Your task to perform on an android device: Search for panasonic triple a on newegg.com, select the first entry, and add it to the cart. Image 0: 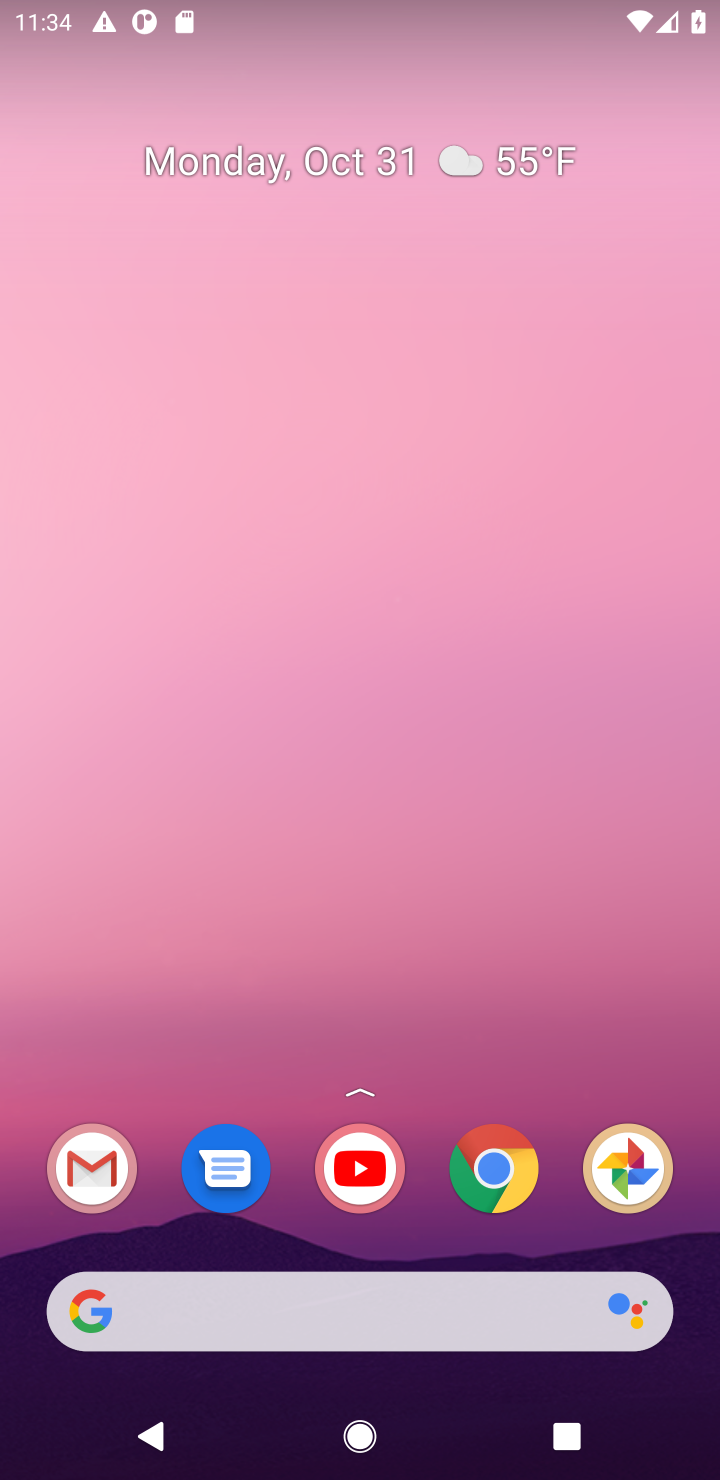
Step 0: click (497, 1172)
Your task to perform on an android device: Search for panasonic triple a on newegg.com, select the first entry, and add it to the cart. Image 1: 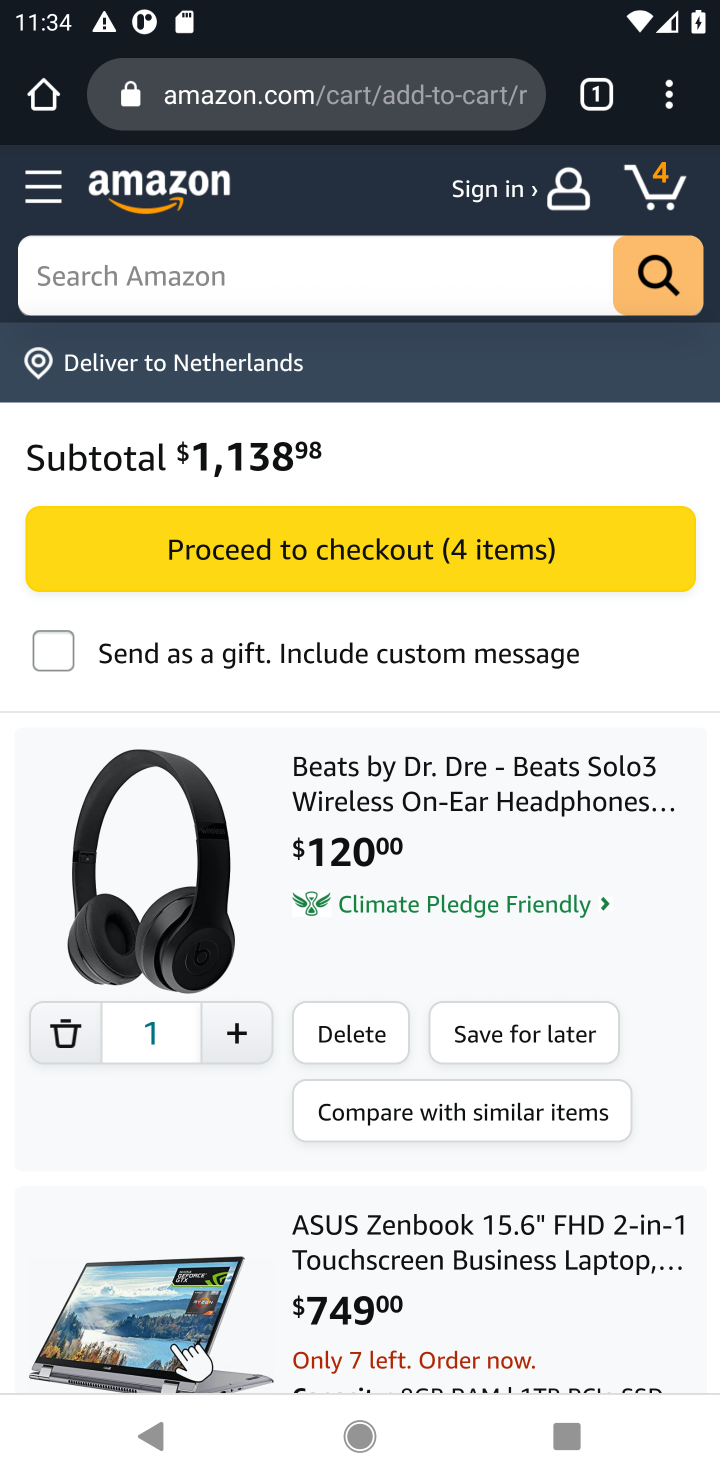
Step 1: click (214, 107)
Your task to perform on an android device: Search for panasonic triple a on newegg.com, select the first entry, and add it to the cart. Image 2: 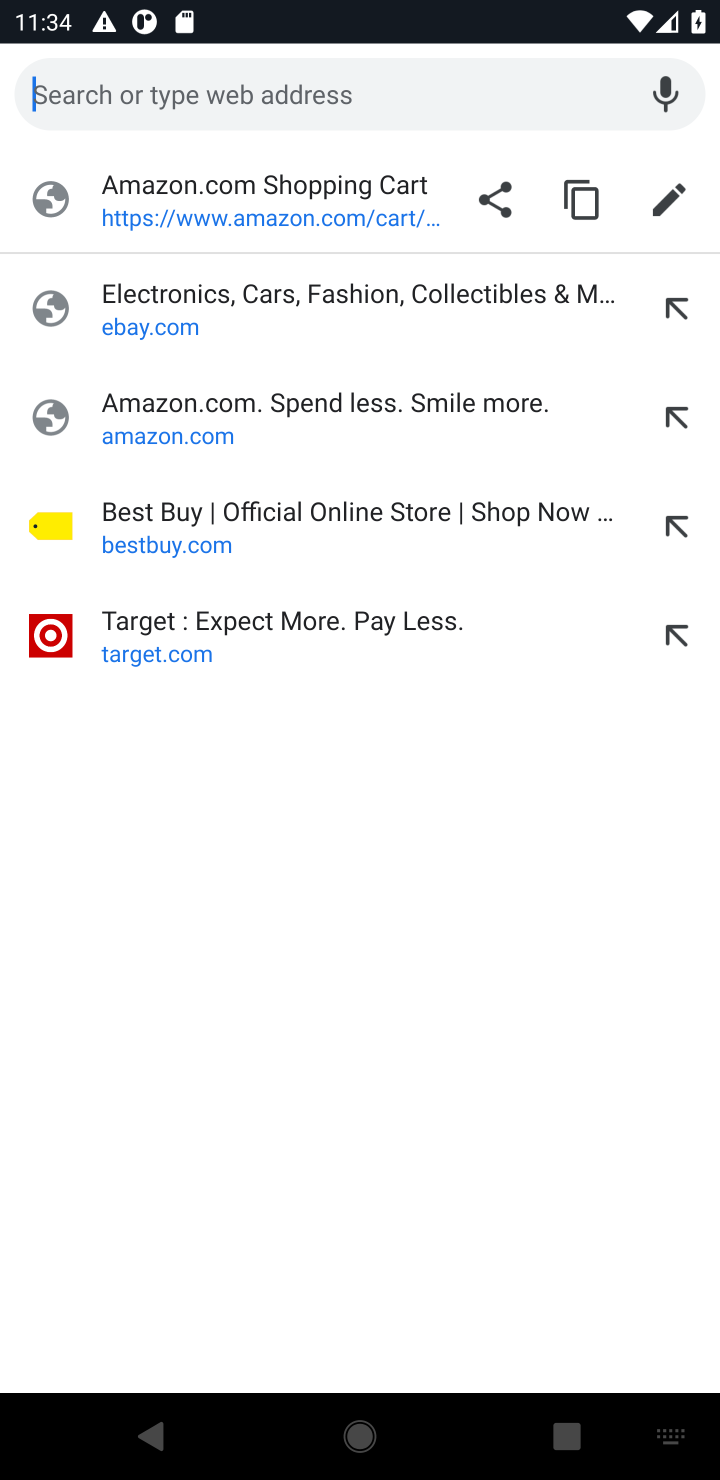
Step 2: click (177, 88)
Your task to perform on an android device: Search for panasonic triple a on newegg.com, select the first entry, and add it to the cart. Image 3: 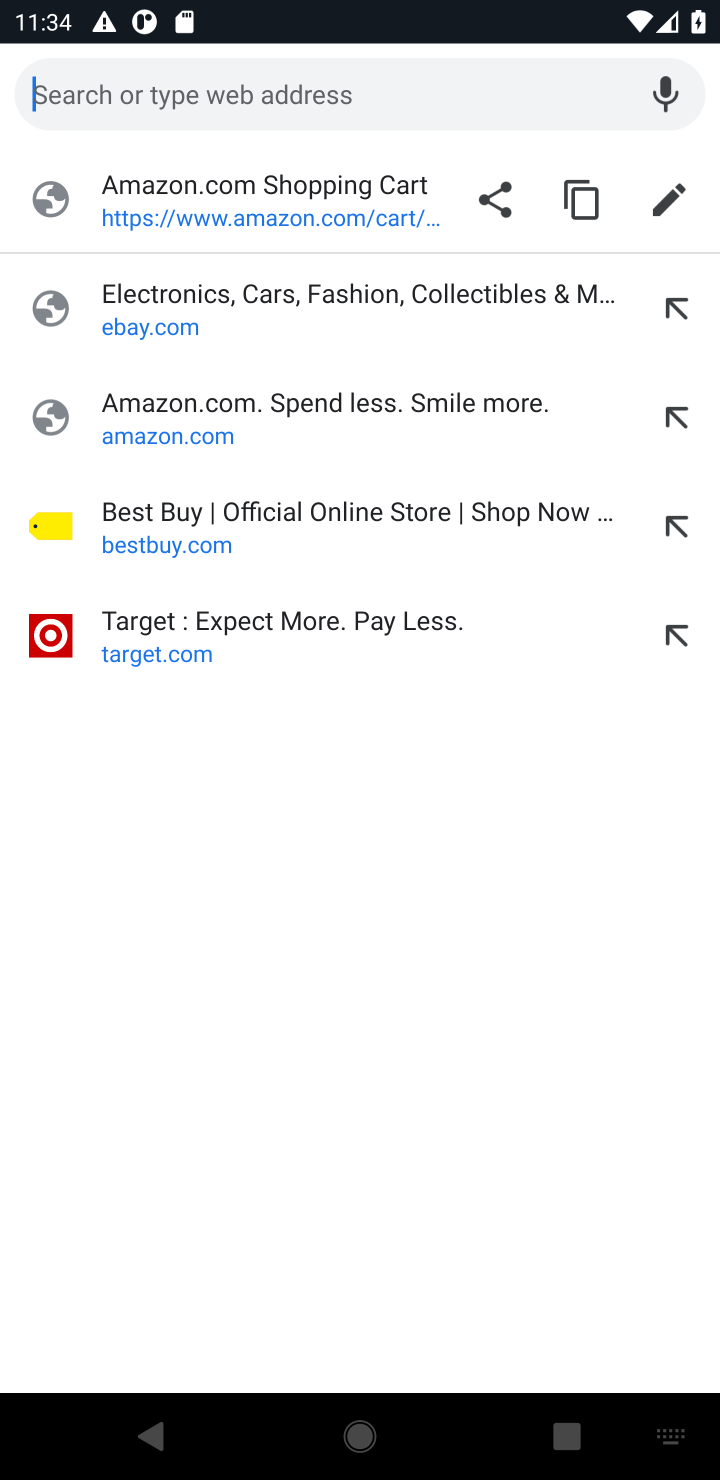
Step 3: type "newegg.com"
Your task to perform on an android device: Search for panasonic triple a on newegg.com, select the first entry, and add it to the cart. Image 4: 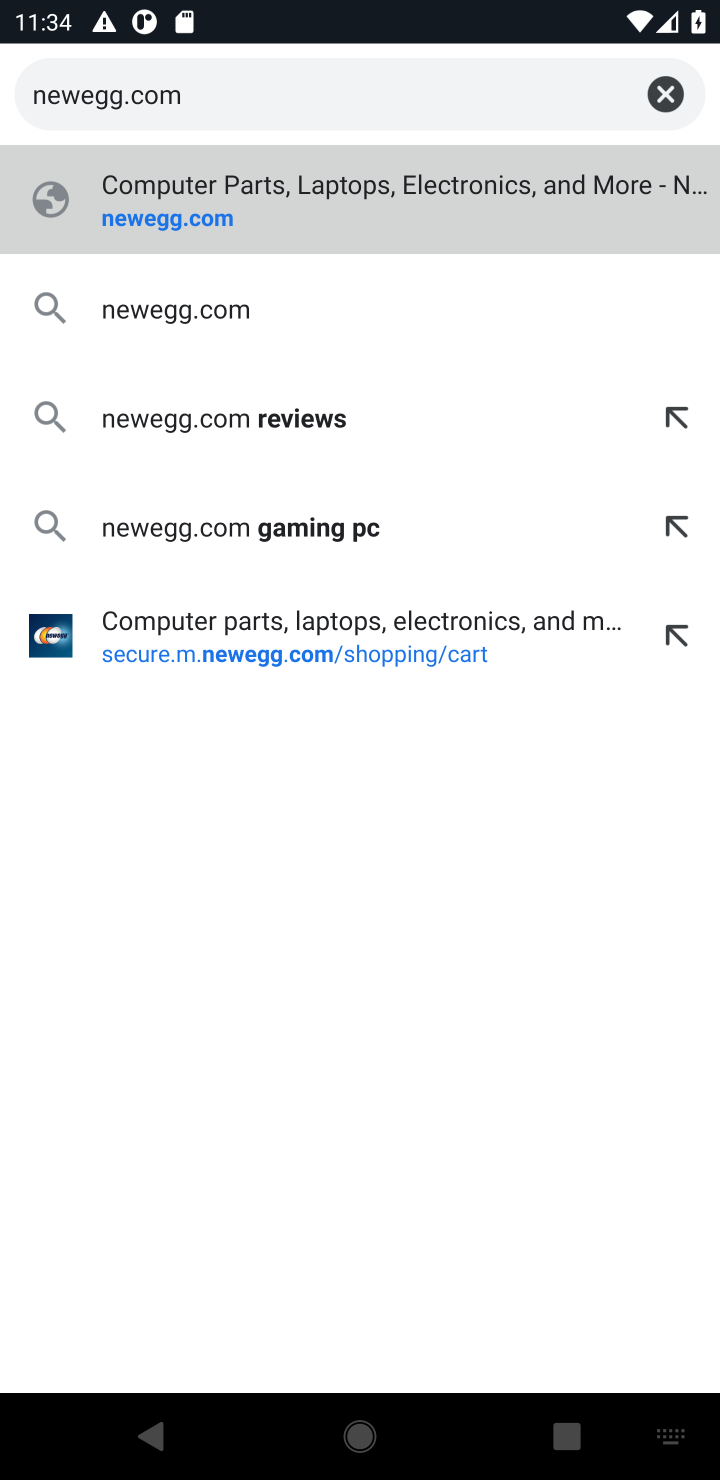
Step 4: press enter
Your task to perform on an android device: Search for panasonic triple a on newegg.com, select the first entry, and add it to the cart. Image 5: 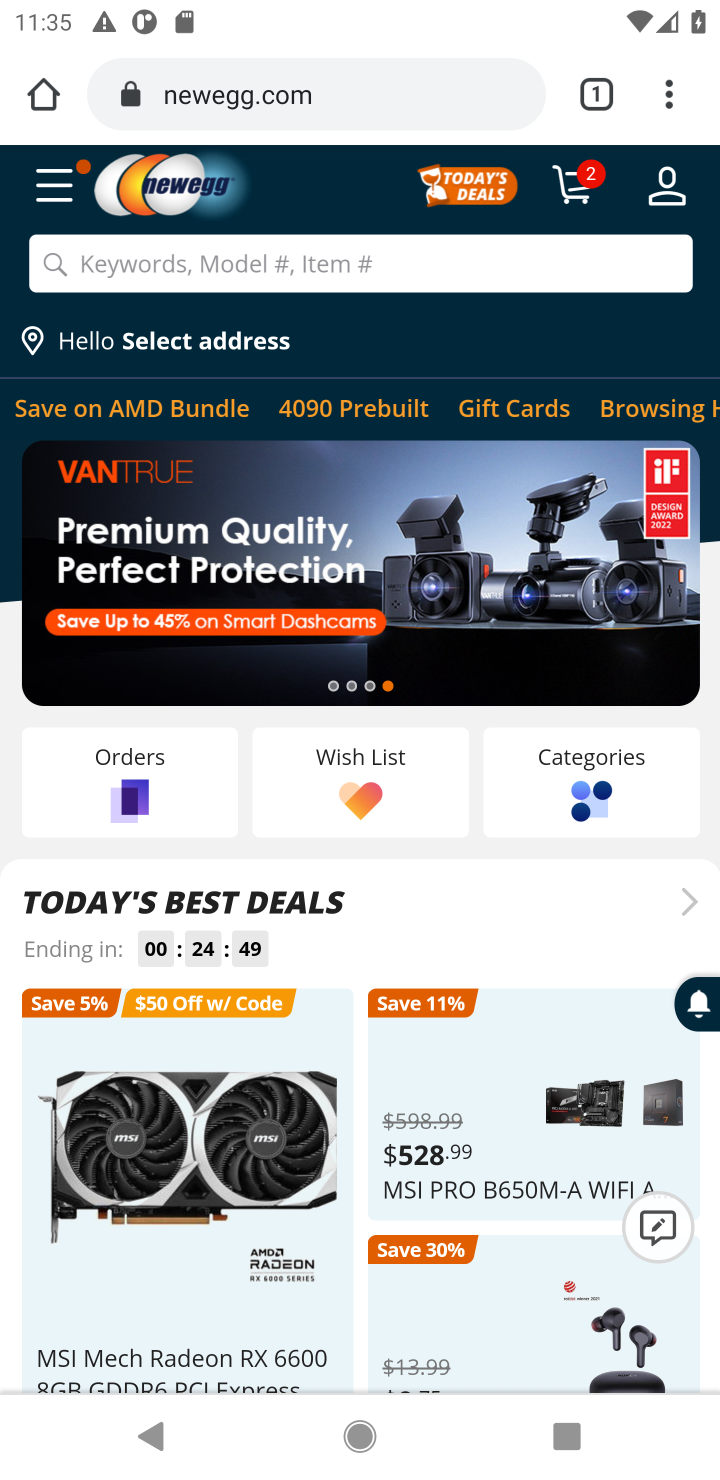
Step 5: click (411, 273)
Your task to perform on an android device: Search for panasonic triple a on newegg.com, select the first entry, and add it to the cart. Image 6: 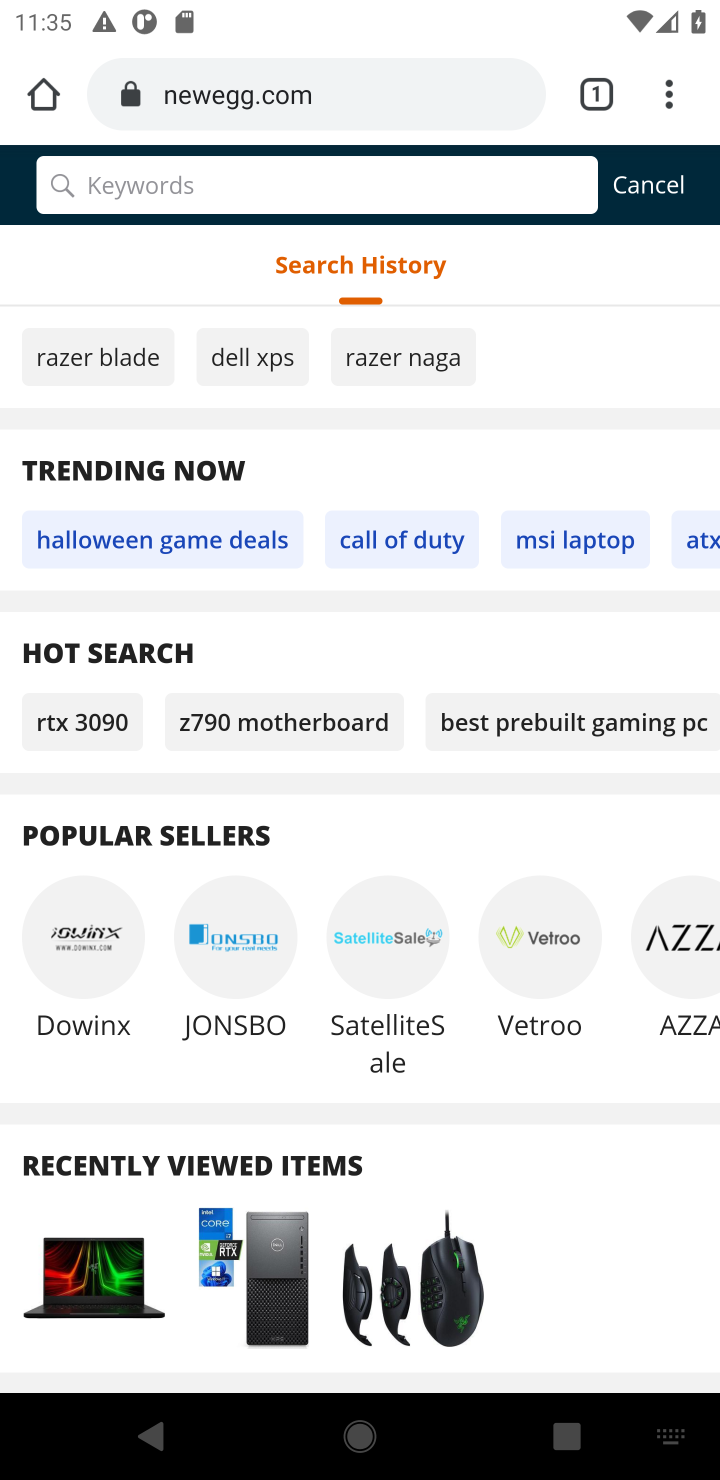
Step 6: type "panasonic triple "
Your task to perform on an android device: Search for panasonic triple a on newegg.com, select the first entry, and add it to the cart. Image 7: 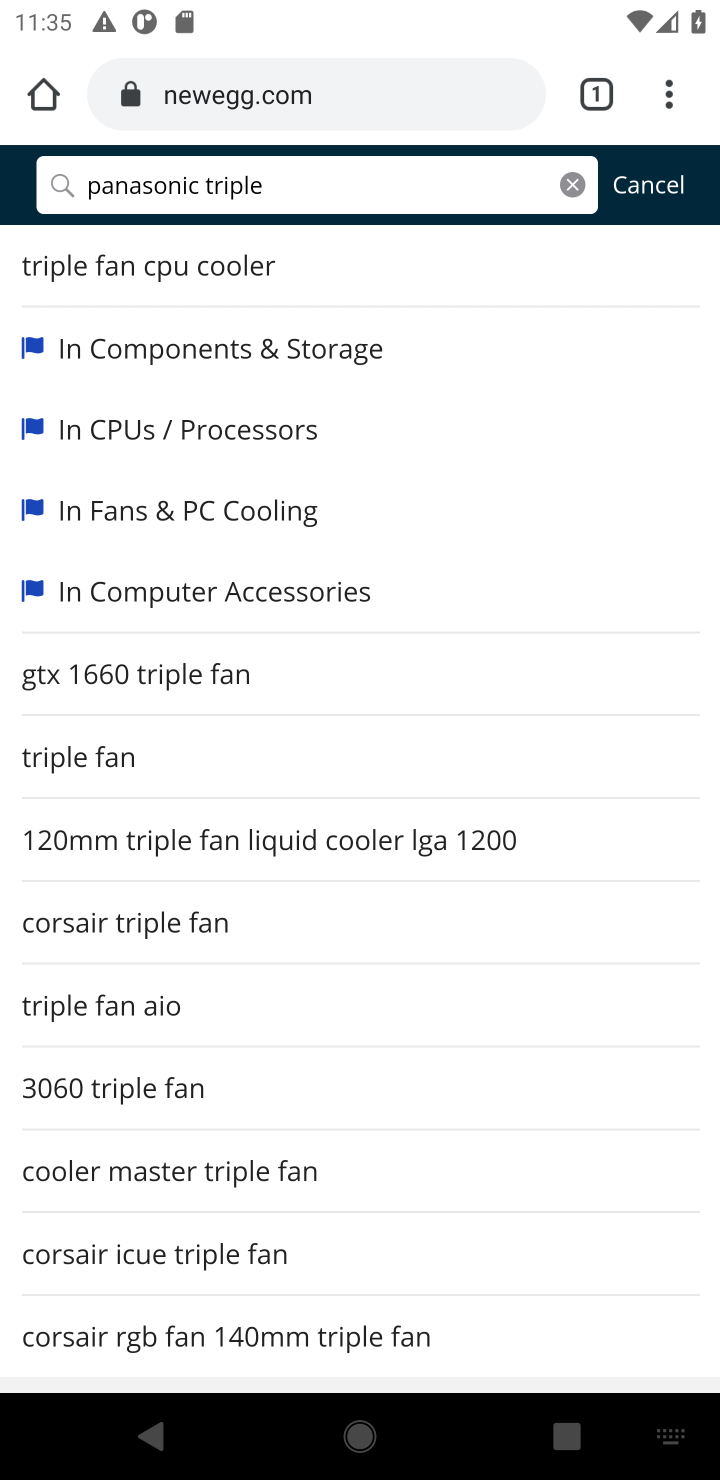
Step 7: press enter
Your task to perform on an android device: Search for panasonic triple a on newegg.com, select the first entry, and add it to the cart. Image 8: 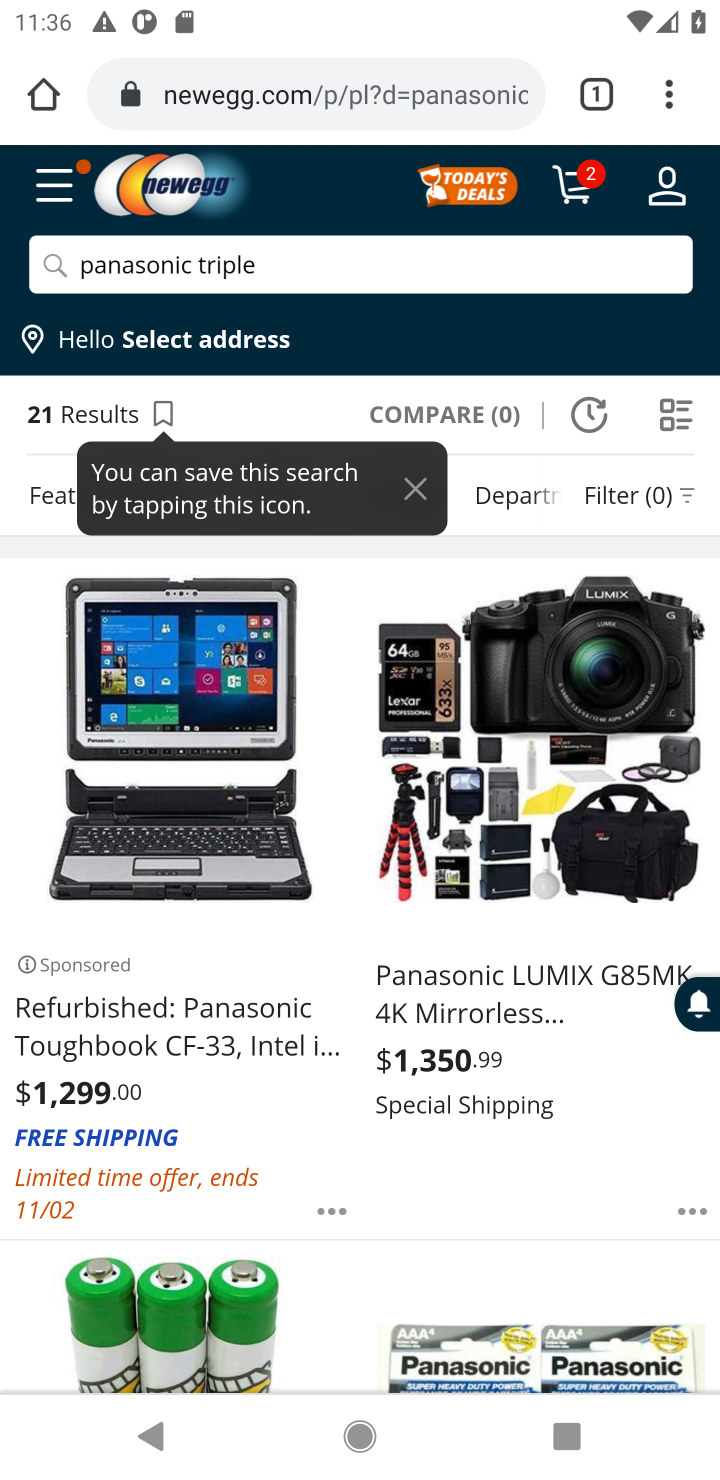
Step 8: click (185, 970)
Your task to perform on an android device: Search for panasonic triple a on newegg.com, select the first entry, and add it to the cart. Image 9: 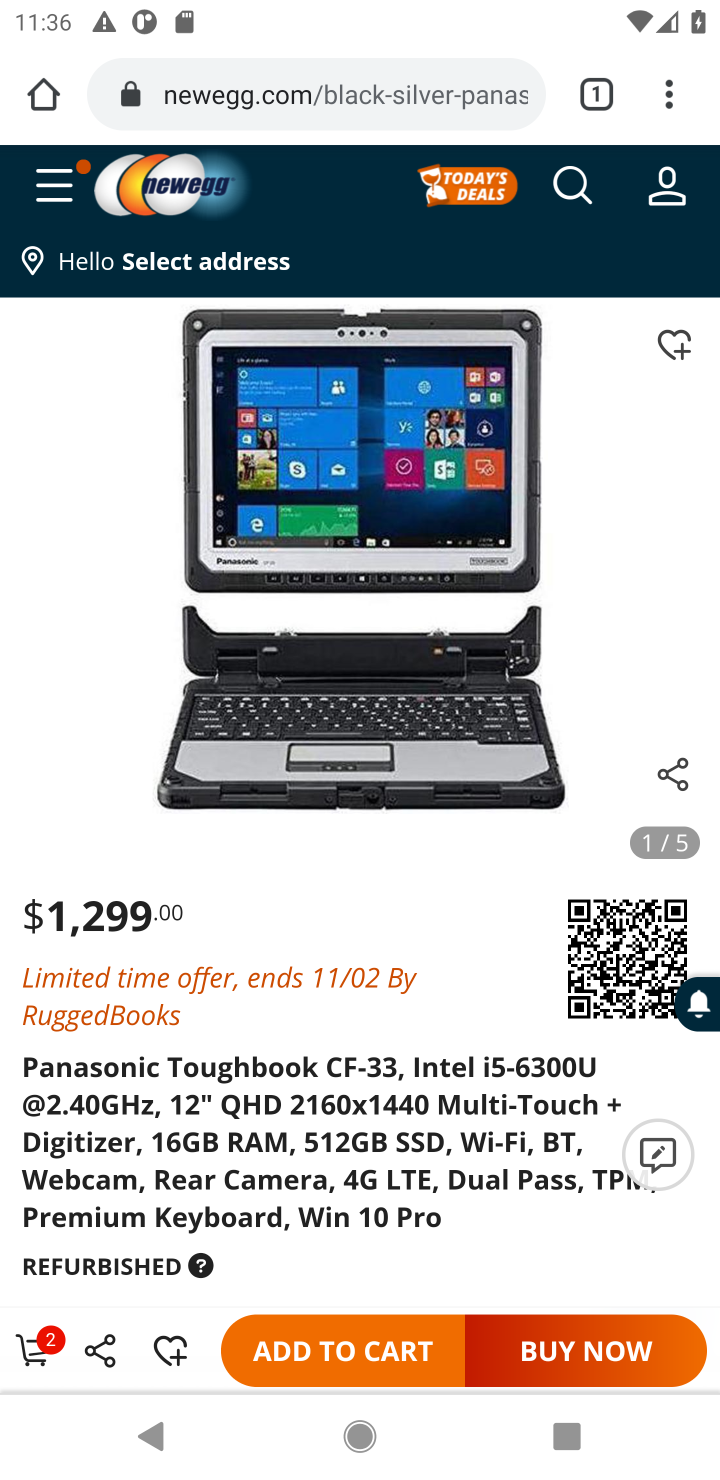
Step 9: click (322, 1362)
Your task to perform on an android device: Search for panasonic triple a on newegg.com, select the first entry, and add it to the cart. Image 10: 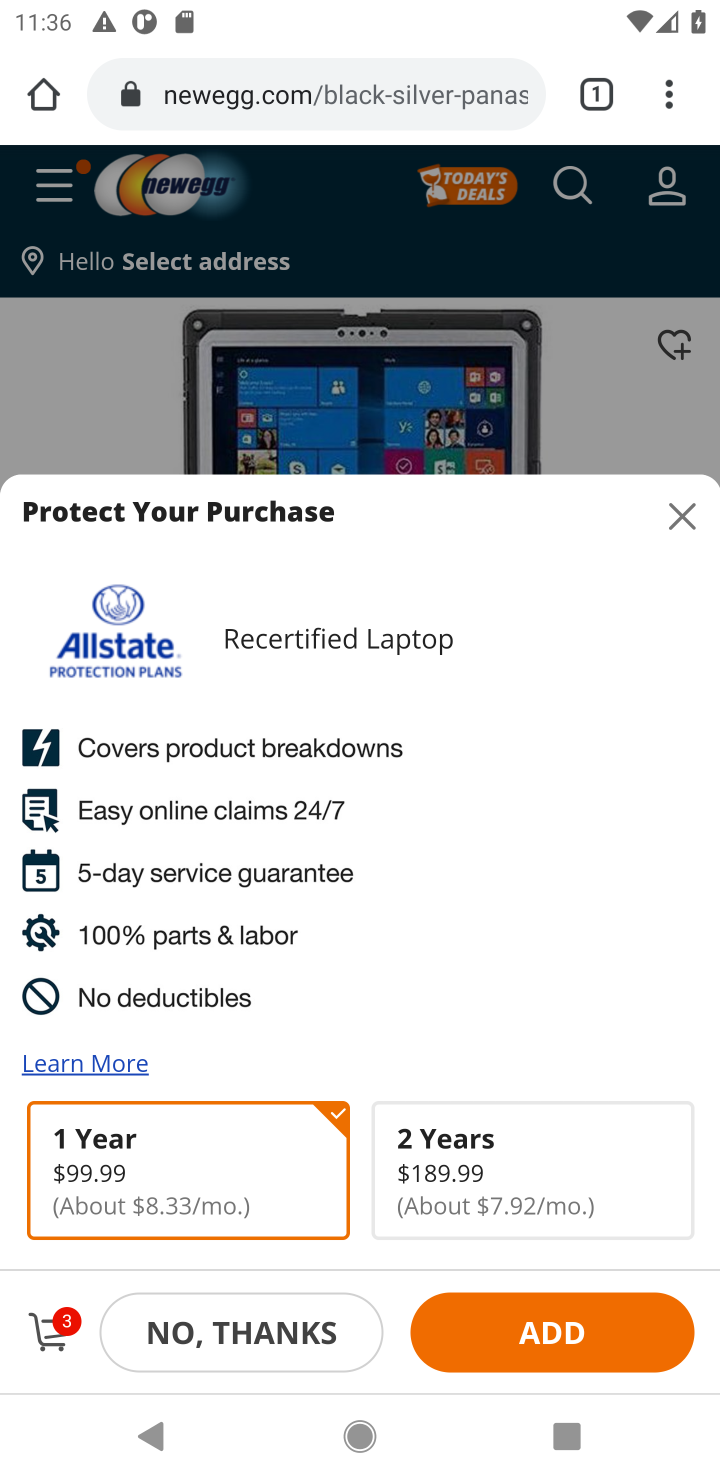
Step 10: task complete